Your task to perform on an android device: Open the web browser Image 0: 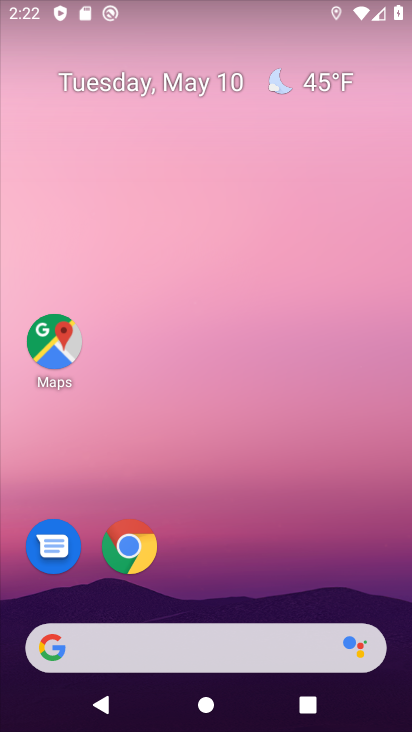
Step 0: drag from (238, 545) to (228, 0)
Your task to perform on an android device: Open the web browser Image 1: 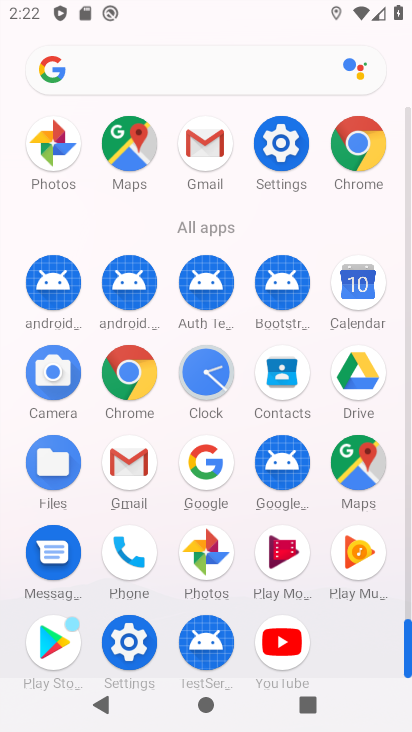
Step 1: drag from (4, 621) to (0, 220)
Your task to perform on an android device: Open the web browser Image 2: 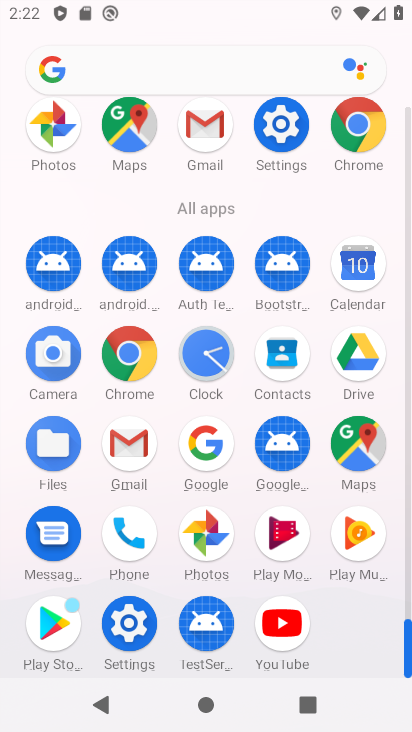
Step 2: click (129, 349)
Your task to perform on an android device: Open the web browser Image 3: 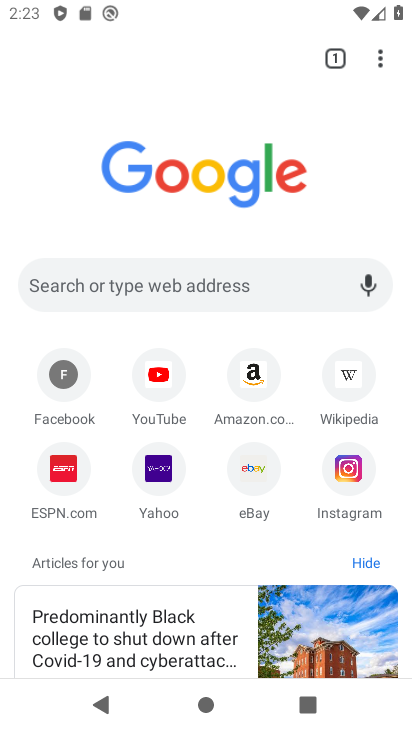
Step 3: task complete